Your task to perform on an android device: turn pop-ups on in chrome Image 0: 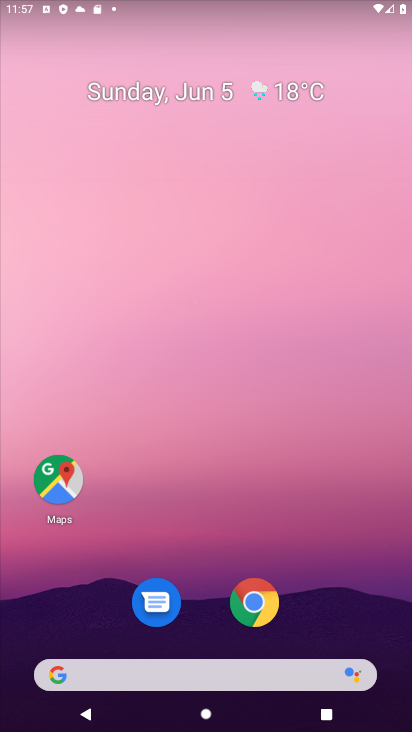
Step 0: task impossible